Your task to perform on an android device: Search for vegetarian restaurants on Maps Image 0: 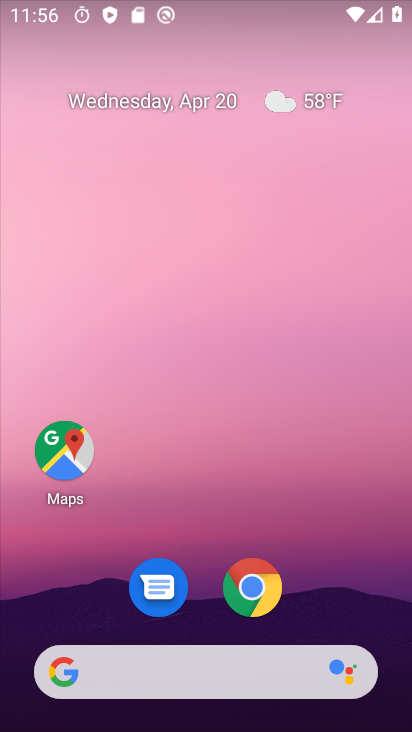
Step 0: click (58, 460)
Your task to perform on an android device: Search for vegetarian restaurants on Maps Image 1: 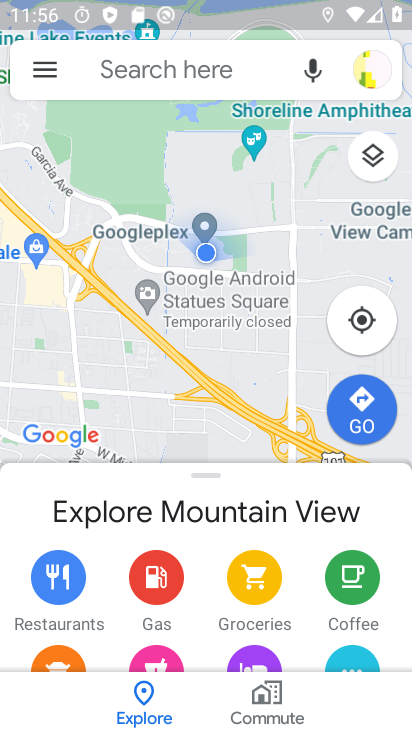
Step 1: click (170, 83)
Your task to perform on an android device: Search for vegetarian restaurants on Maps Image 2: 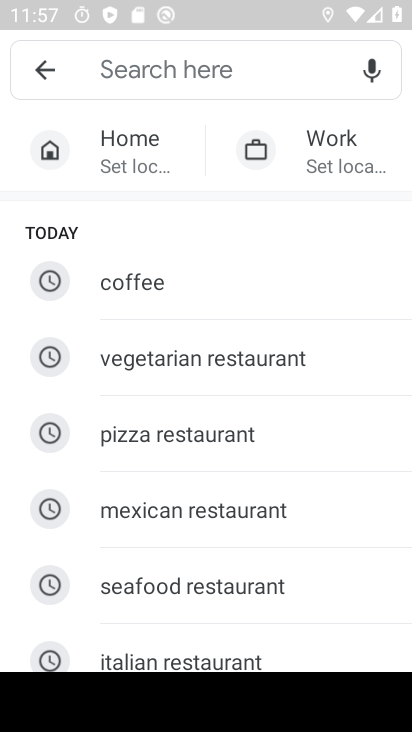
Step 2: type "vegetarian restaurants"
Your task to perform on an android device: Search for vegetarian restaurants on Maps Image 3: 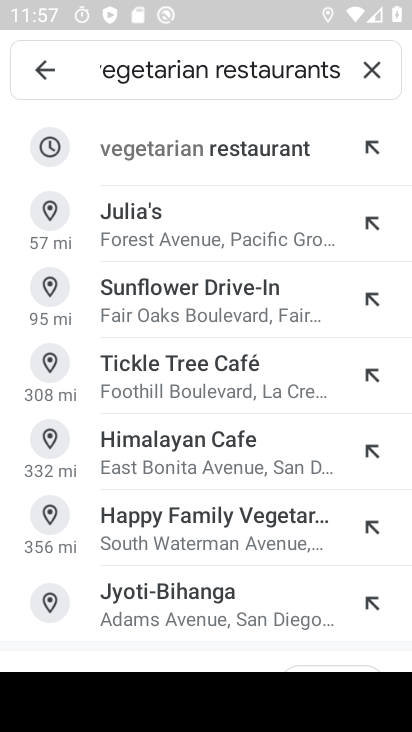
Step 3: click (192, 162)
Your task to perform on an android device: Search for vegetarian restaurants on Maps Image 4: 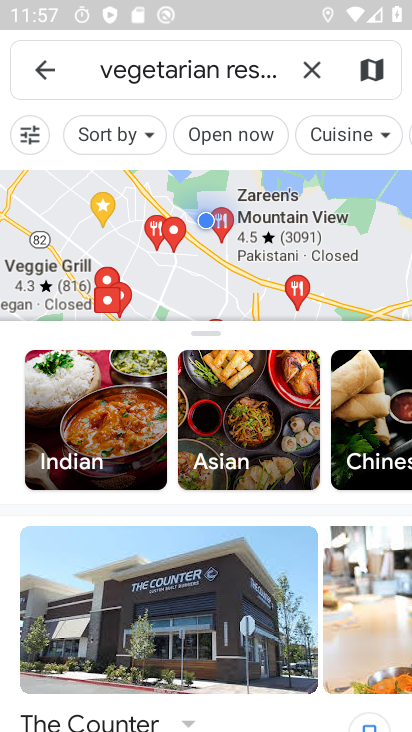
Step 4: task complete